Your task to perform on an android device: check data usage Image 0: 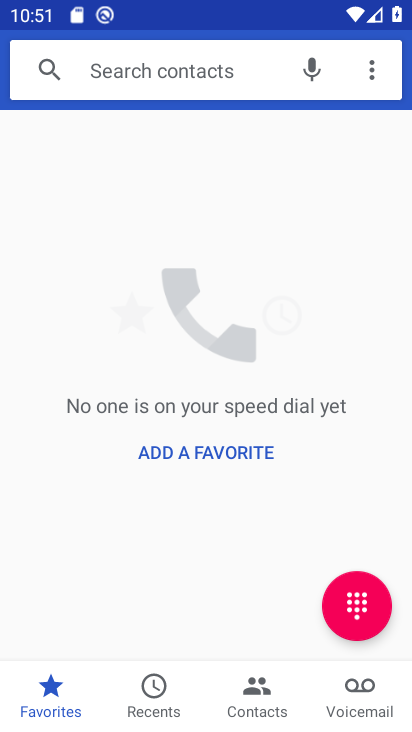
Step 0: press back button
Your task to perform on an android device: check data usage Image 1: 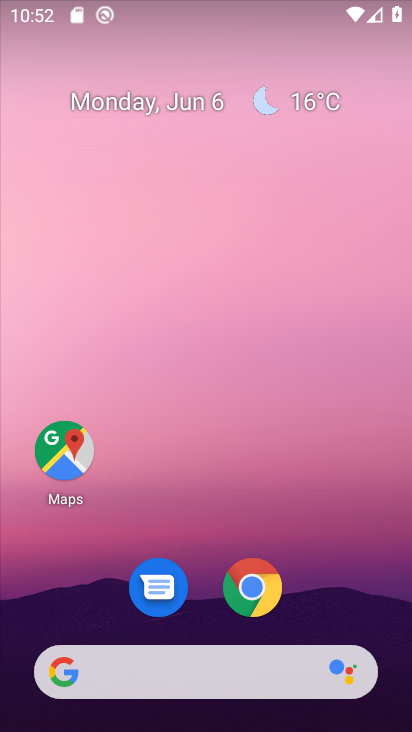
Step 1: drag from (310, 510) to (238, 27)
Your task to perform on an android device: check data usage Image 2: 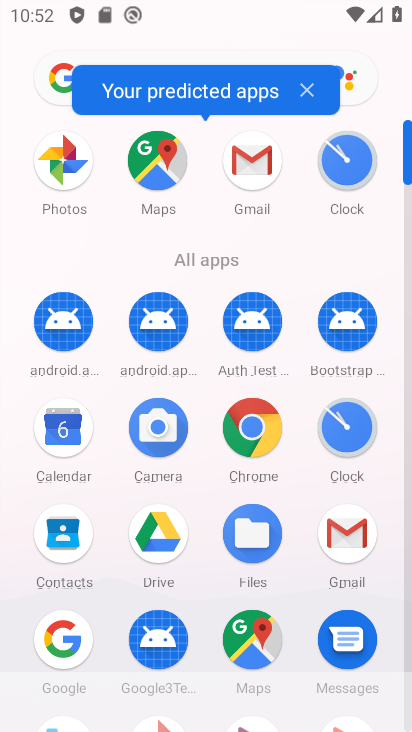
Step 2: drag from (15, 605) to (6, 232)
Your task to perform on an android device: check data usage Image 3: 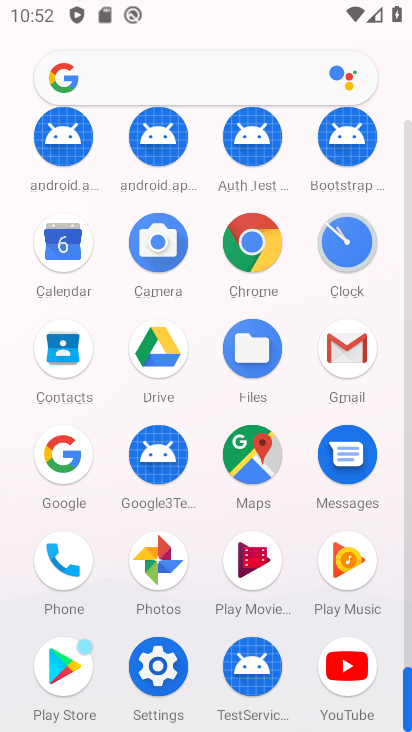
Step 3: click (155, 661)
Your task to perform on an android device: check data usage Image 4: 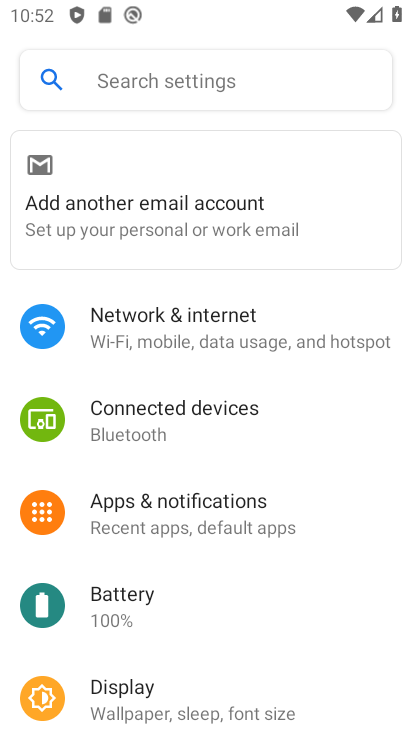
Step 4: click (146, 320)
Your task to perform on an android device: check data usage Image 5: 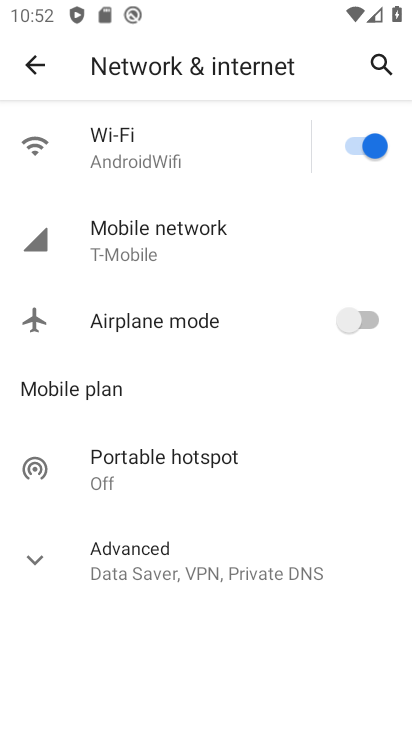
Step 5: click (156, 219)
Your task to perform on an android device: check data usage Image 6: 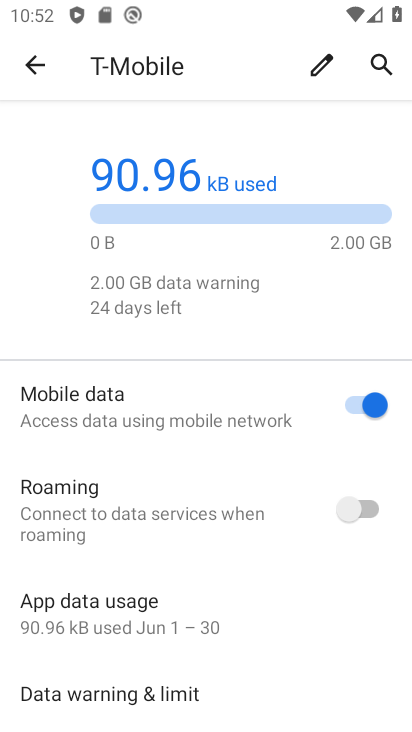
Step 6: task complete